Your task to perform on an android device: snooze an email in the gmail app Image 0: 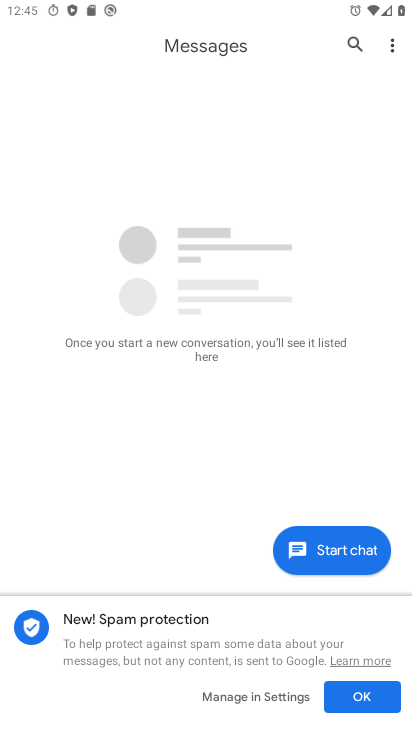
Step 0: press home button
Your task to perform on an android device: snooze an email in the gmail app Image 1: 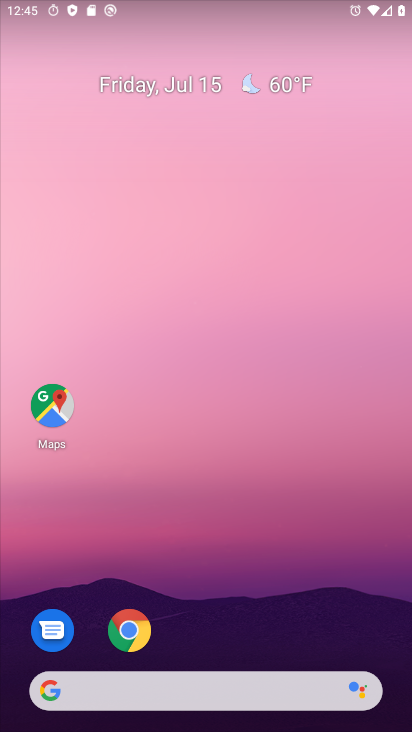
Step 1: drag from (223, 626) to (214, 244)
Your task to perform on an android device: snooze an email in the gmail app Image 2: 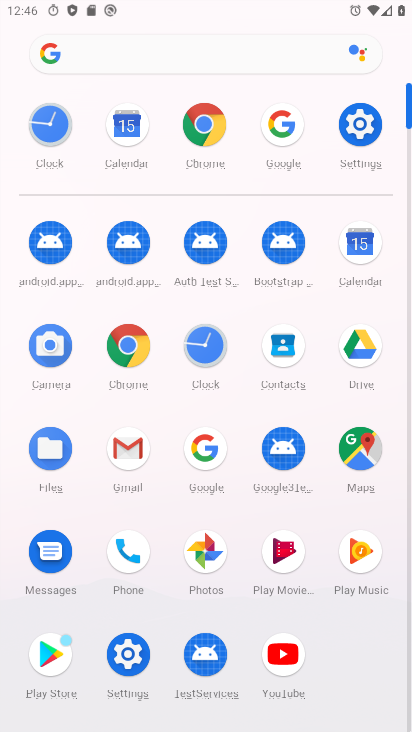
Step 2: click (133, 441)
Your task to perform on an android device: snooze an email in the gmail app Image 3: 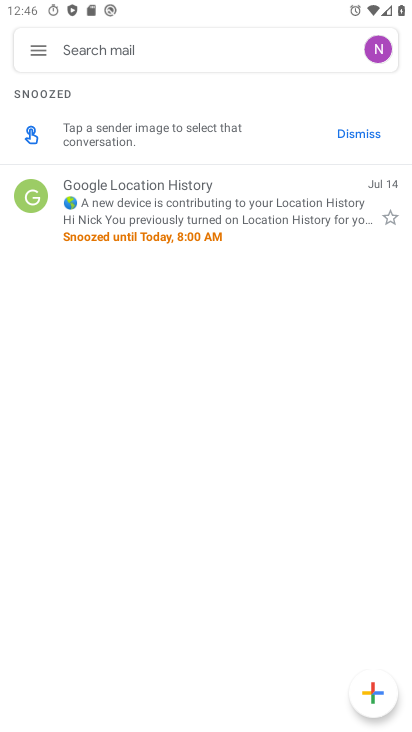
Step 3: click (222, 181)
Your task to perform on an android device: snooze an email in the gmail app Image 4: 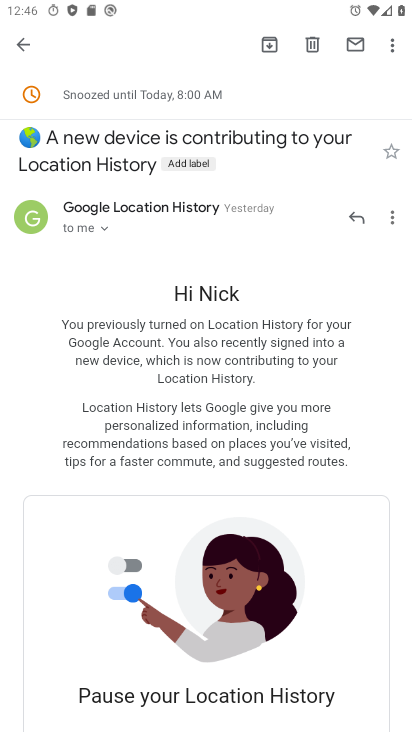
Step 4: click (393, 49)
Your task to perform on an android device: snooze an email in the gmail app Image 5: 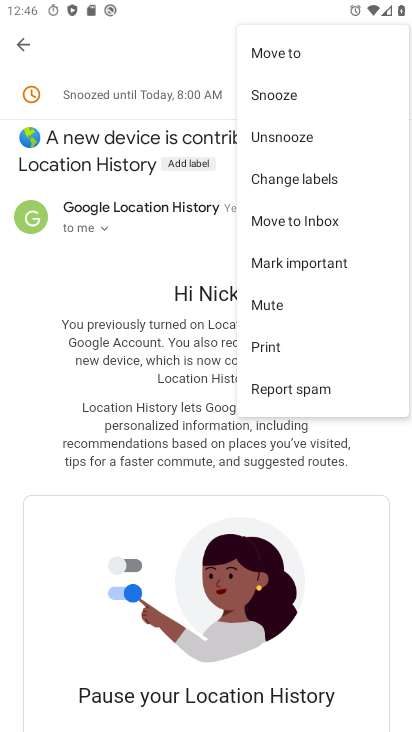
Step 5: click (283, 96)
Your task to perform on an android device: snooze an email in the gmail app Image 6: 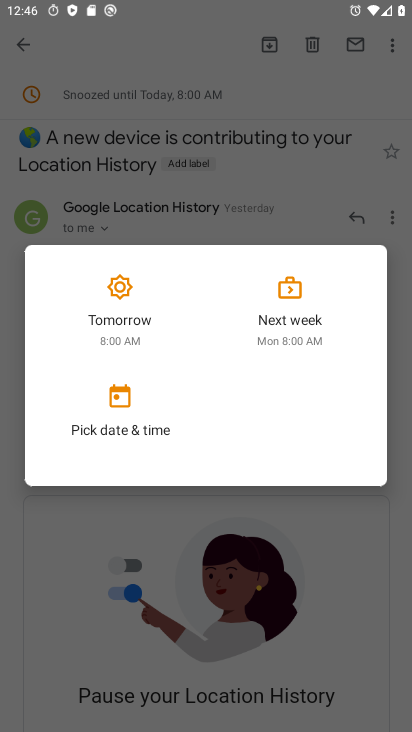
Step 6: click (124, 319)
Your task to perform on an android device: snooze an email in the gmail app Image 7: 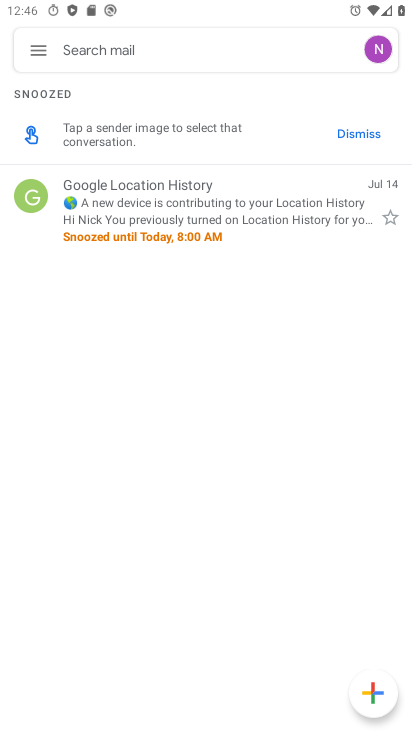
Step 7: task complete